Your task to perform on an android device: visit the assistant section in the google photos Image 0: 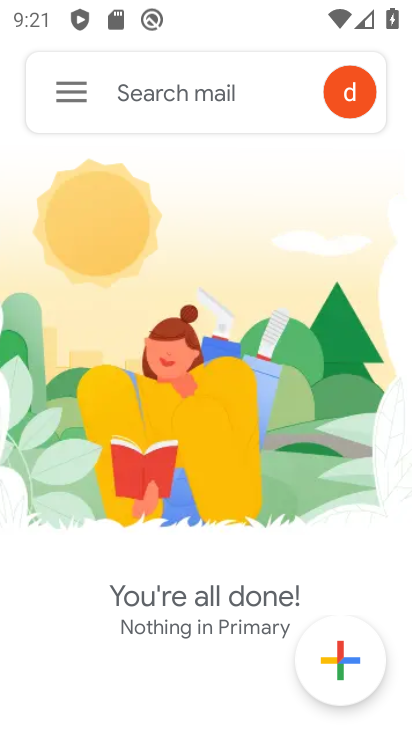
Step 0: press home button
Your task to perform on an android device: visit the assistant section in the google photos Image 1: 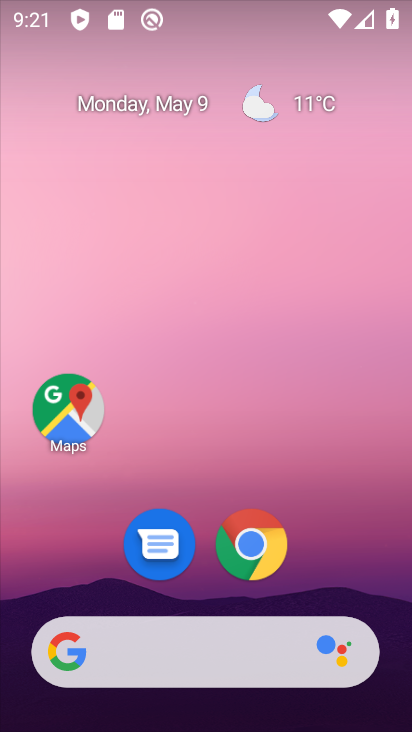
Step 1: drag from (390, 622) to (380, 244)
Your task to perform on an android device: visit the assistant section in the google photos Image 2: 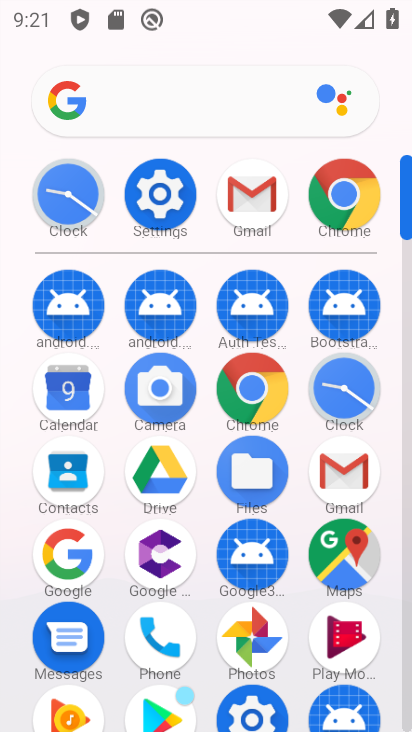
Step 2: click (254, 644)
Your task to perform on an android device: visit the assistant section in the google photos Image 3: 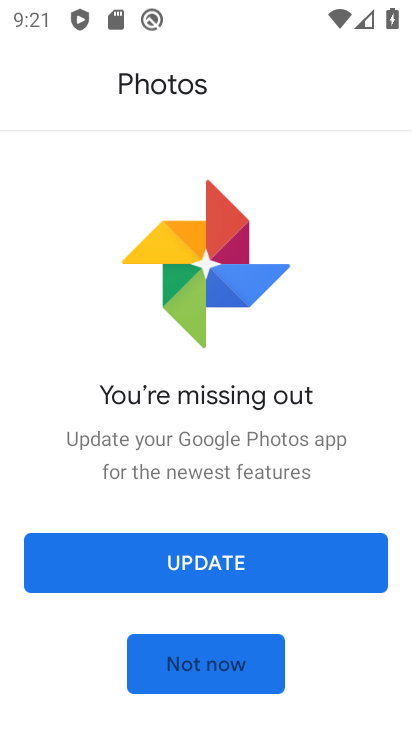
Step 3: click (194, 568)
Your task to perform on an android device: visit the assistant section in the google photos Image 4: 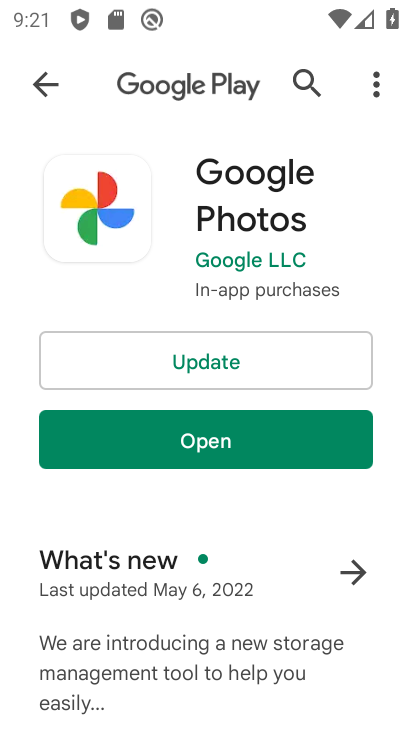
Step 4: click (251, 366)
Your task to perform on an android device: visit the assistant section in the google photos Image 5: 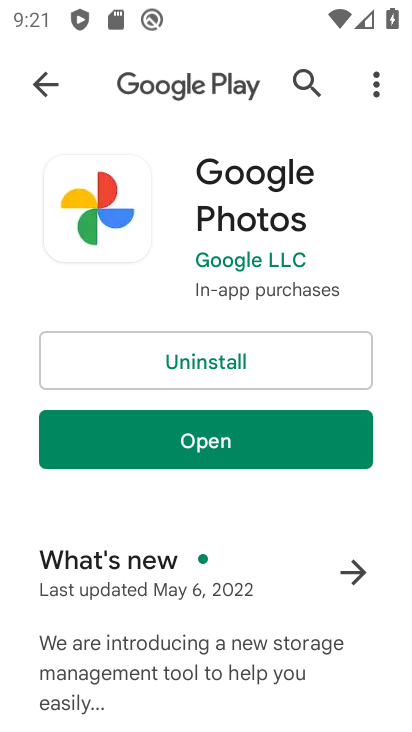
Step 5: click (235, 438)
Your task to perform on an android device: visit the assistant section in the google photos Image 6: 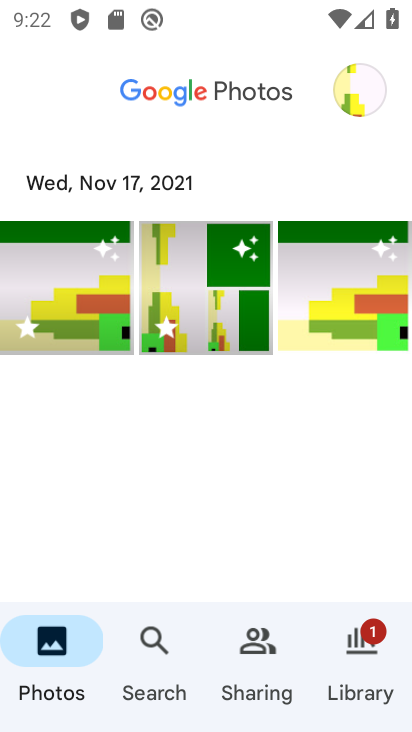
Step 6: click (74, 285)
Your task to perform on an android device: visit the assistant section in the google photos Image 7: 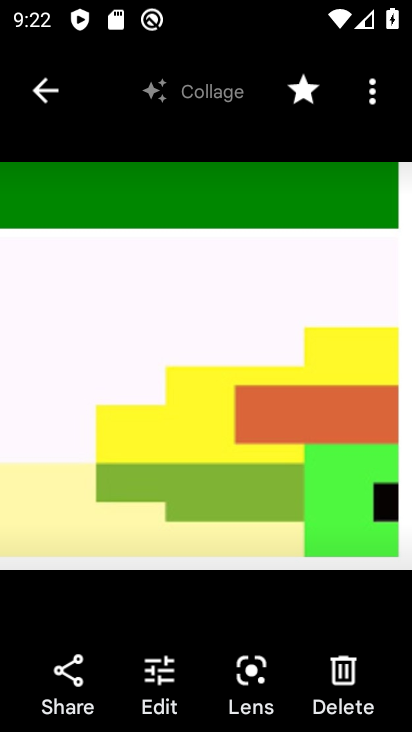
Step 7: click (56, 89)
Your task to perform on an android device: visit the assistant section in the google photos Image 8: 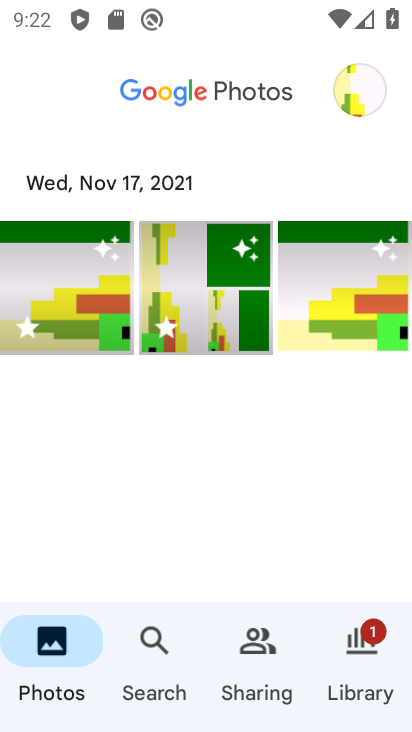
Step 8: task complete